Your task to perform on an android device: Open Google Chrome Image 0: 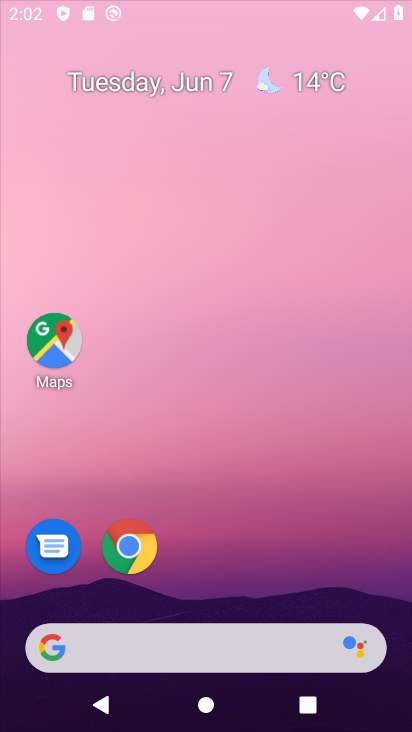
Step 0: click (130, 547)
Your task to perform on an android device: Open Google Chrome Image 1: 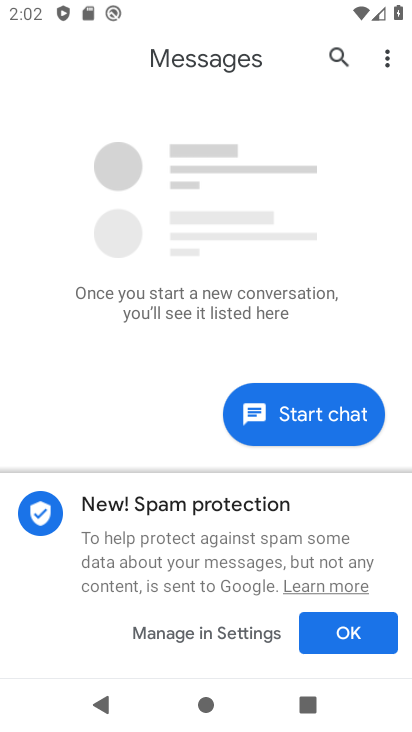
Step 1: press home button
Your task to perform on an android device: Open Google Chrome Image 2: 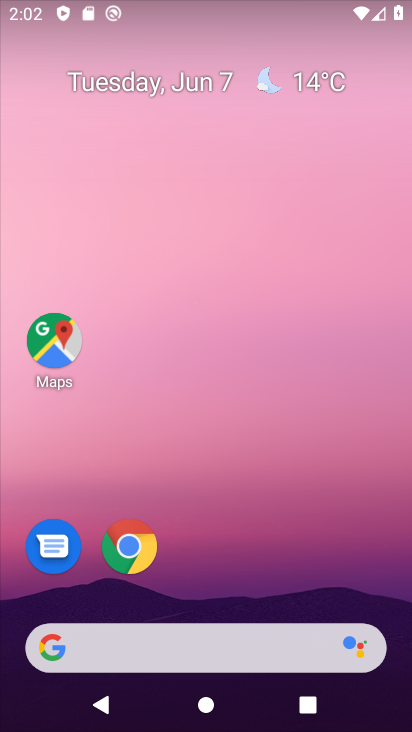
Step 2: click (126, 545)
Your task to perform on an android device: Open Google Chrome Image 3: 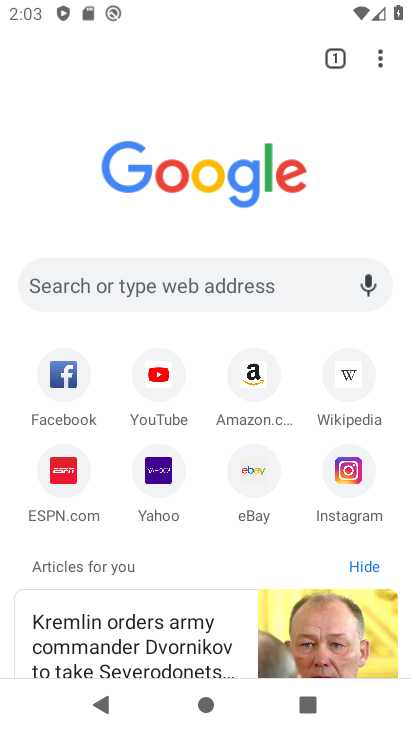
Step 3: task complete